Your task to perform on an android device: find photos in the google photos app Image 0: 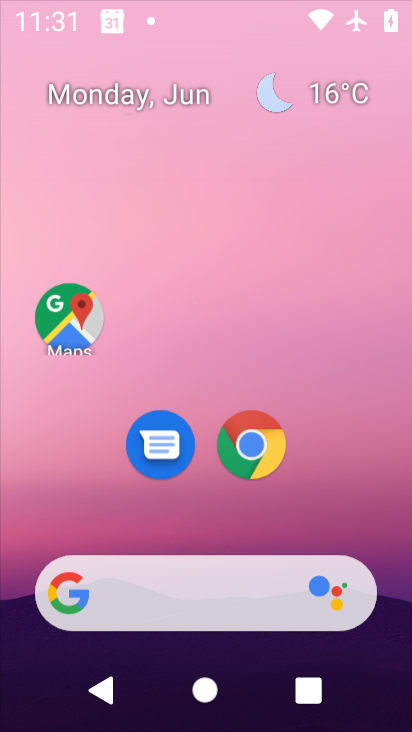
Step 0: press home button
Your task to perform on an android device: find photos in the google photos app Image 1: 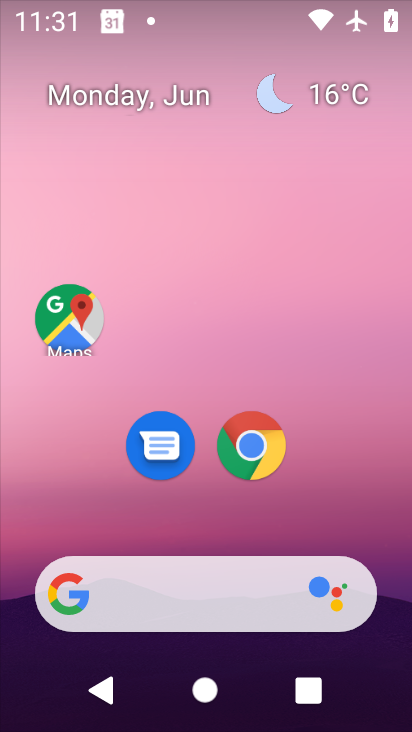
Step 1: drag from (197, 511) to (182, 57)
Your task to perform on an android device: find photos in the google photos app Image 2: 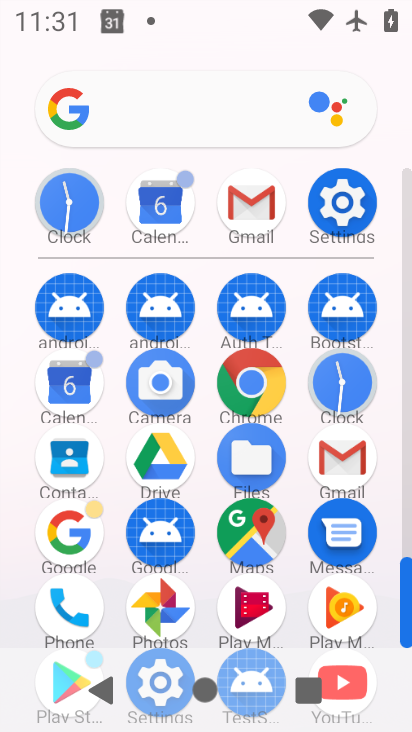
Step 2: click (162, 587)
Your task to perform on an android device: find photos in the google photos app Image 3: 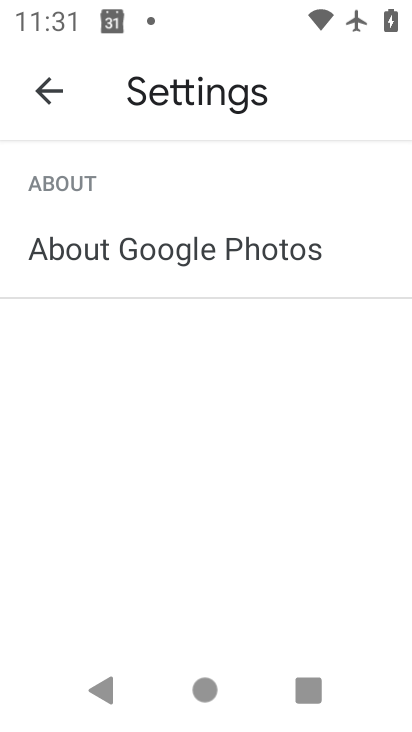
Step 3: click (44, 89)
Your task to perform on an android device: find photos in the google photos app Image 4: 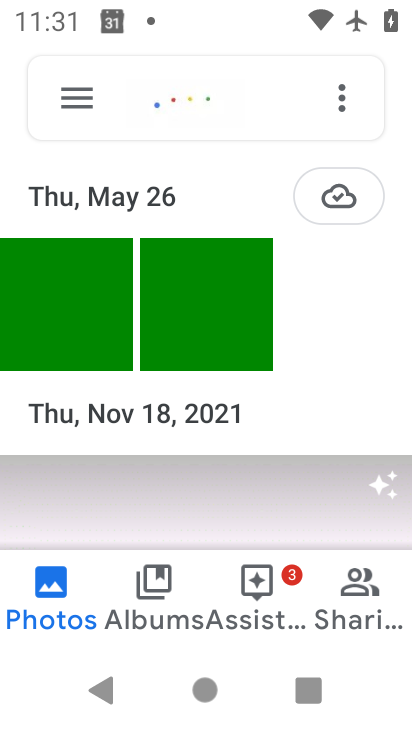
Step 4: click (55, 588)
Your task to perform on an android device: find photos in the google photos app Image 5: 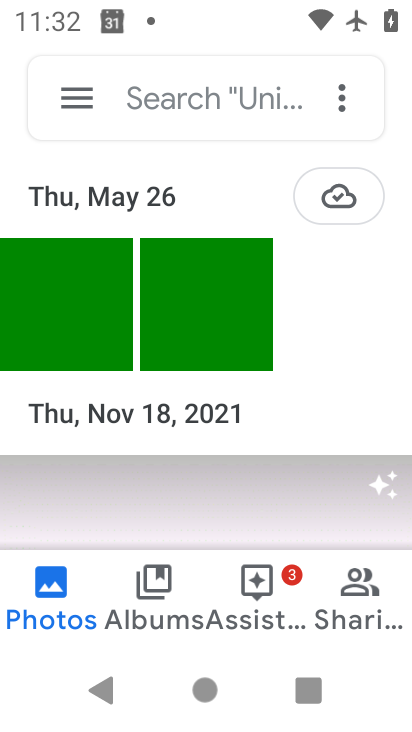
Step 5: task complete